Your task to perform on an android device: open chrome privacy settings Image 0: 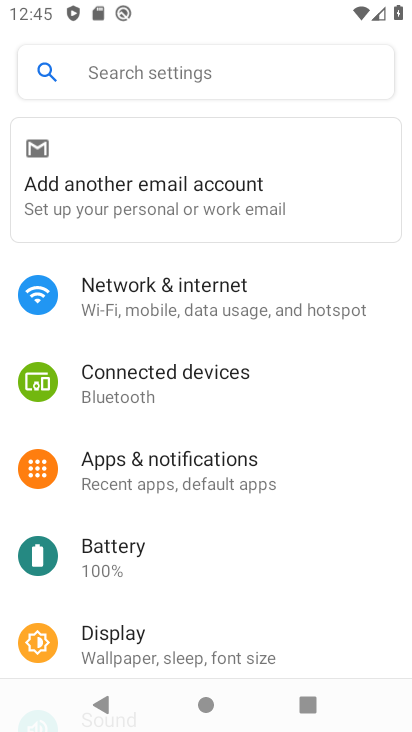
Step 0: press home button
Your task to perform on an android device: open chrome privacy settings Image 1: 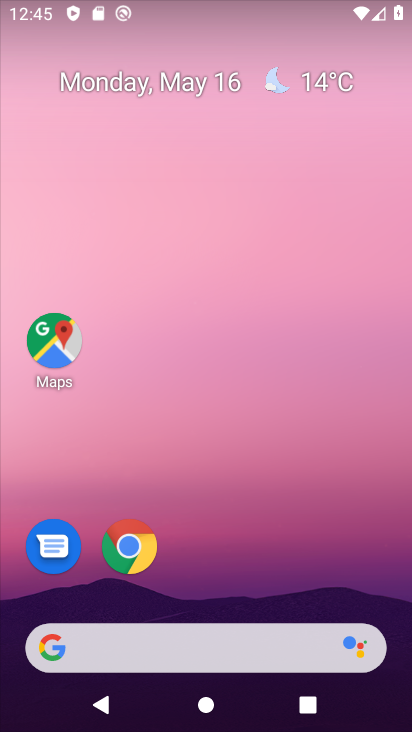
Step 1: drag from (261, 677) to (328, 280)
Your task to perform on an android device: open chrome privacy settings Image 2: 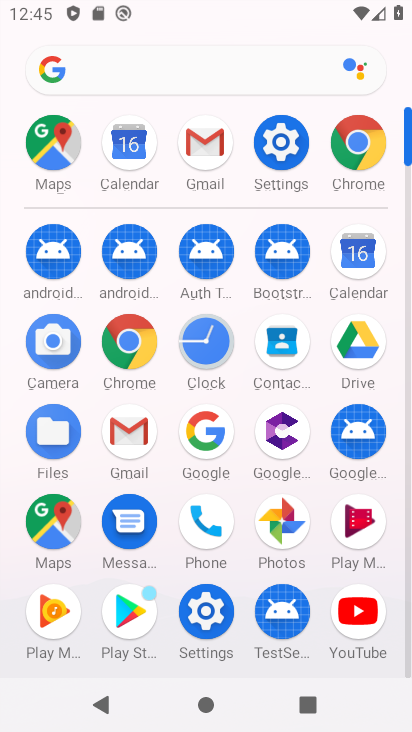
Step 2: click (120, 335)
Your task to perform on an android device: open chrome privacy settings Image 3: 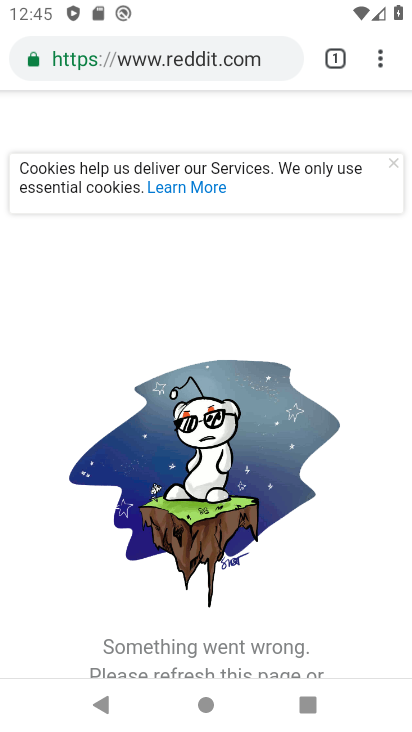
Step 3: click (371, 64)
Your task to perform on an android device: open chrome privacy settings Image 4: 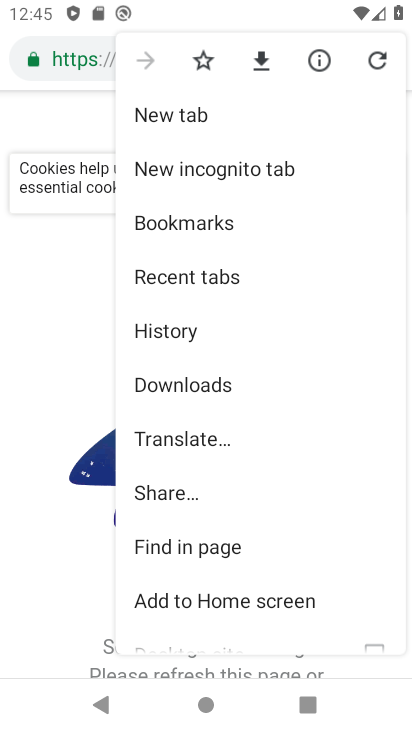
Step 4: drag from (191, 559) to (291, 327)
Your task to perform on an android device: open chrome privacy settings Image 5: 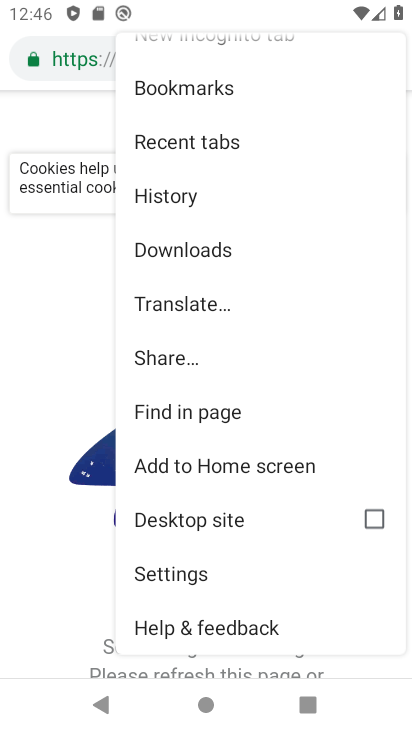
Step 5: click (193, 571)
Your task to perform on an android device: open chrome privacy settings Image 6: 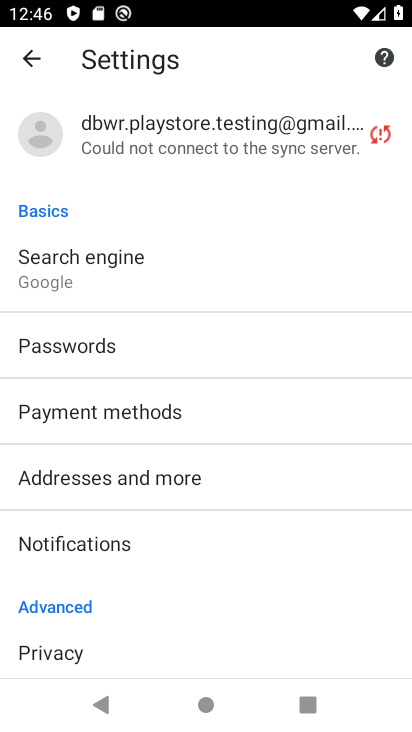
Step 6: click (74, 647)
Your task to perform on an android device: open chrome privacy settings Image 7: 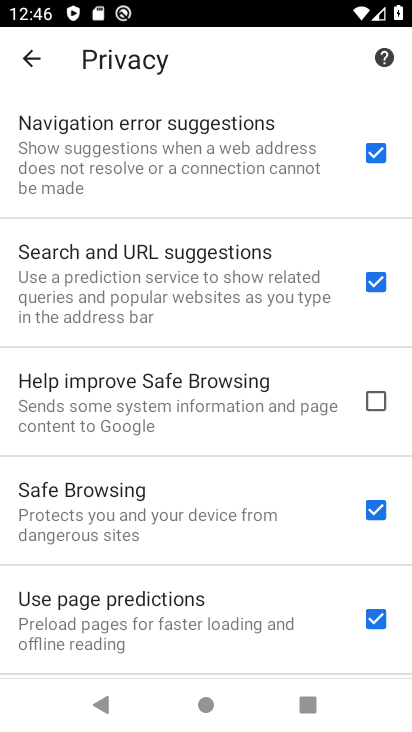
Step 7: task complete